Your task to perform on an android device: What's the latest video from IGN? Image 0: 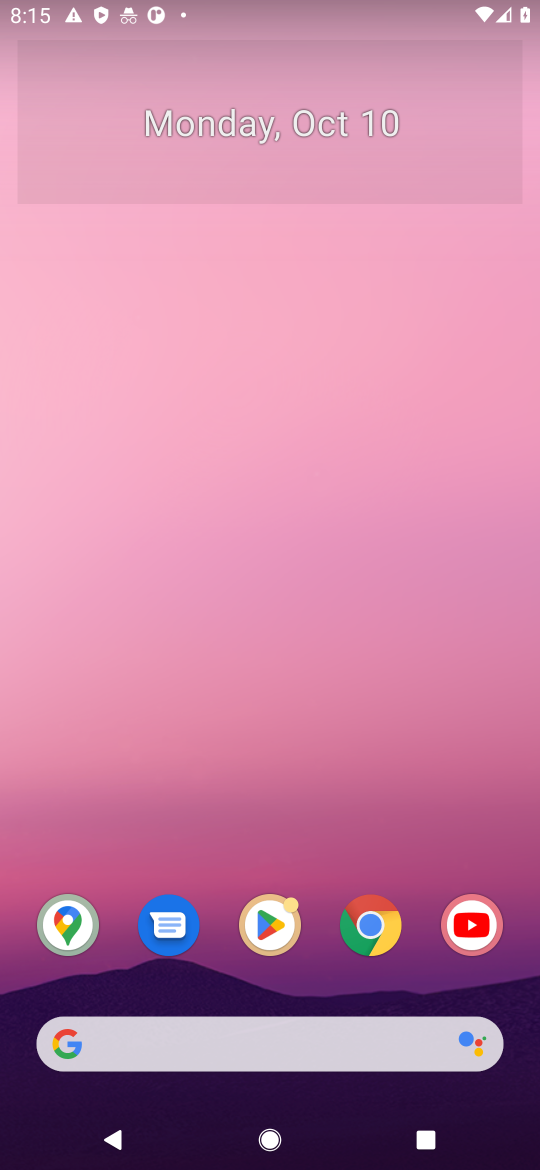
Step 0: drag from (322, 991) to (258, 45)
Your task to perform on an android device: What's the latest video from IGN? Image 1: 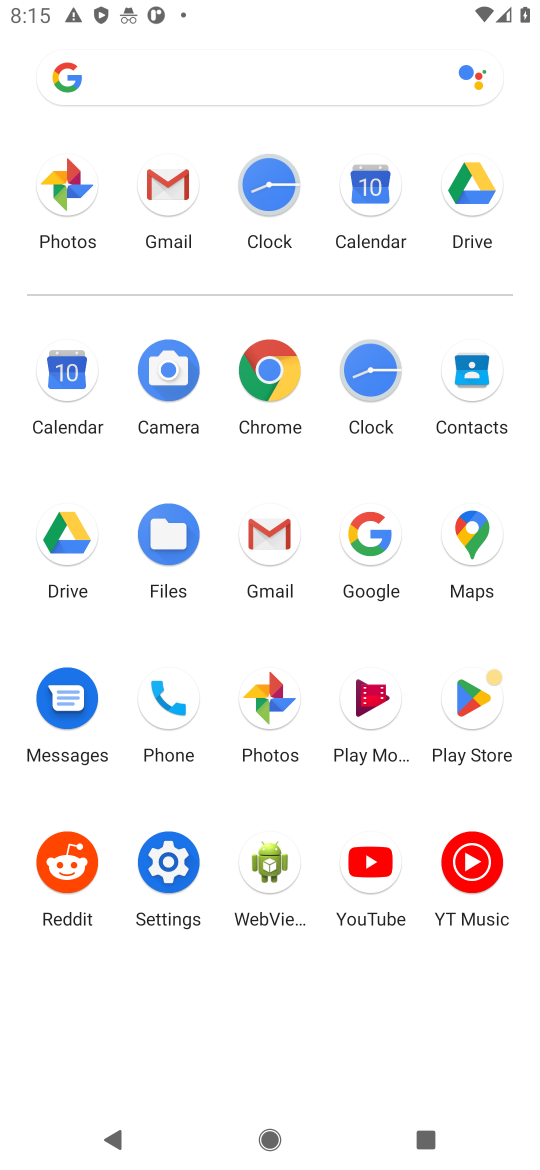
Step 1: click (259, 374)
Your task to perform on an android device: What's the latest video from IGN? Image 2: 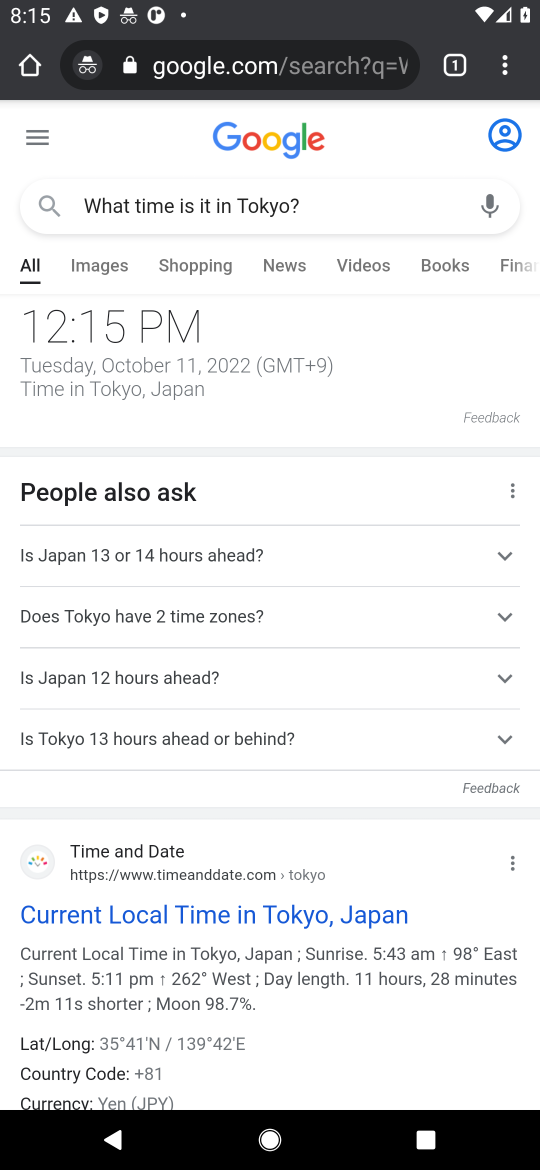
Step 2: press home button
Your task to perform on an android device: What's the latest video from IGN? Image 3: 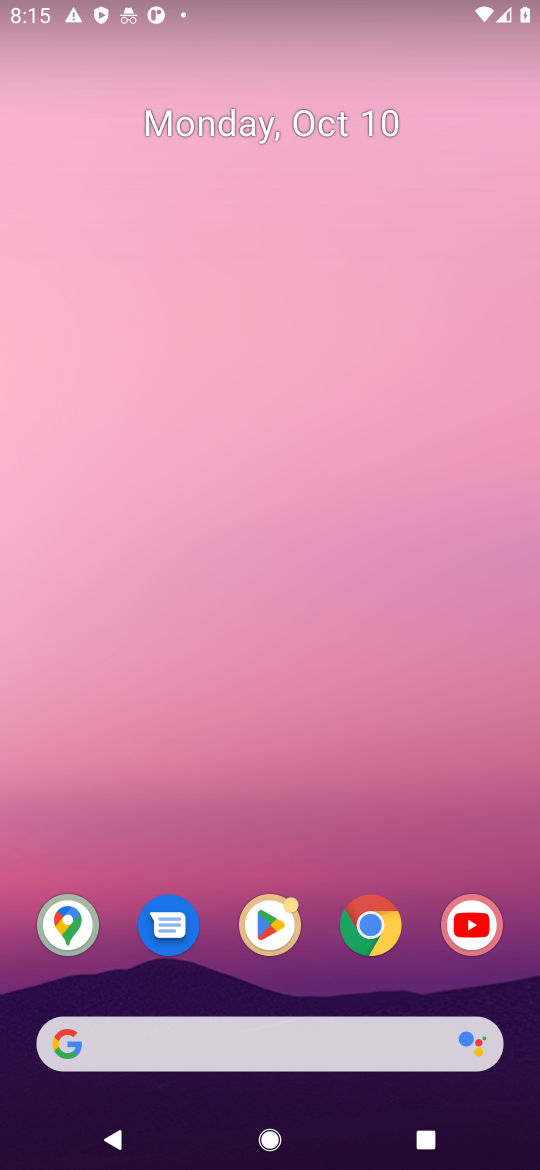
Step 3: click (475, 926)
Your task to perform on an android device: What's the latest video from IGN? Image 4: 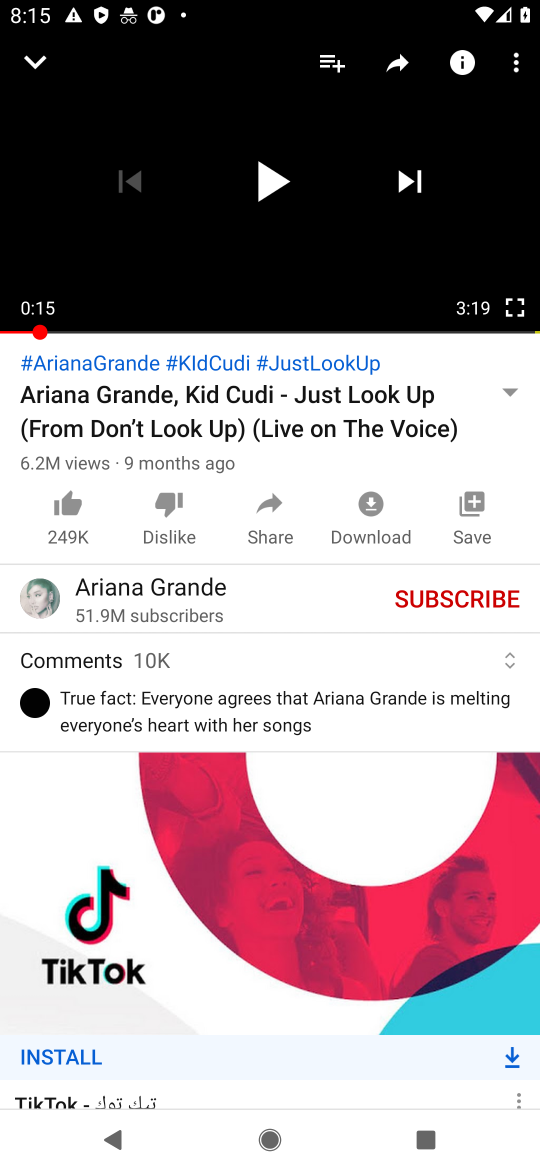
Step 4: drag from (363, 156) to (259, 961)
Your task to perform on an android device: What's the latest video from IGN? Image 5: 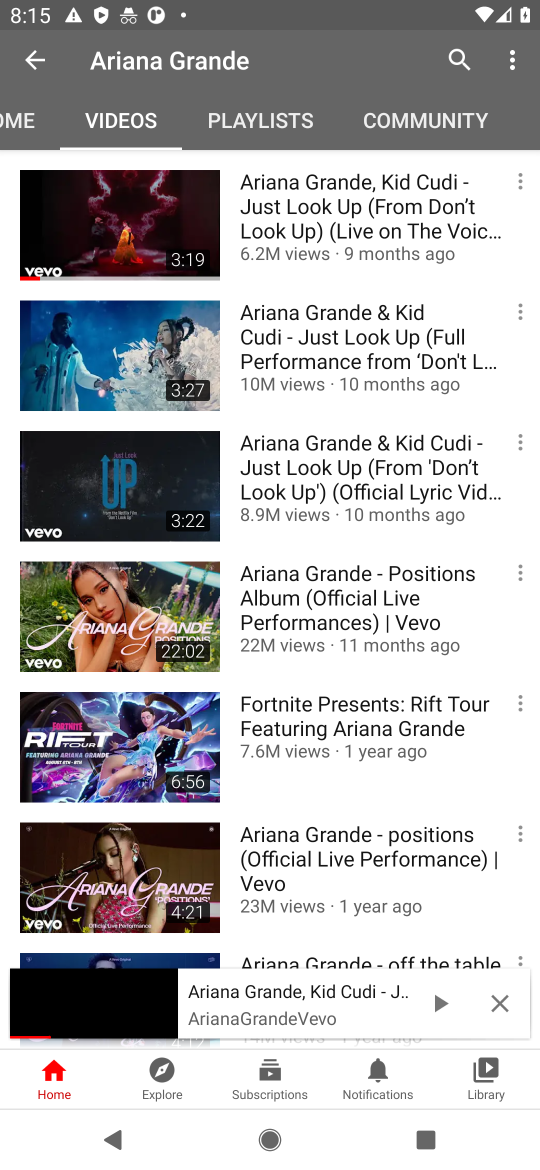
Step 5: click (319, 54)
Your task to perform on an android device: What's the latest video from IGN? Image 6: 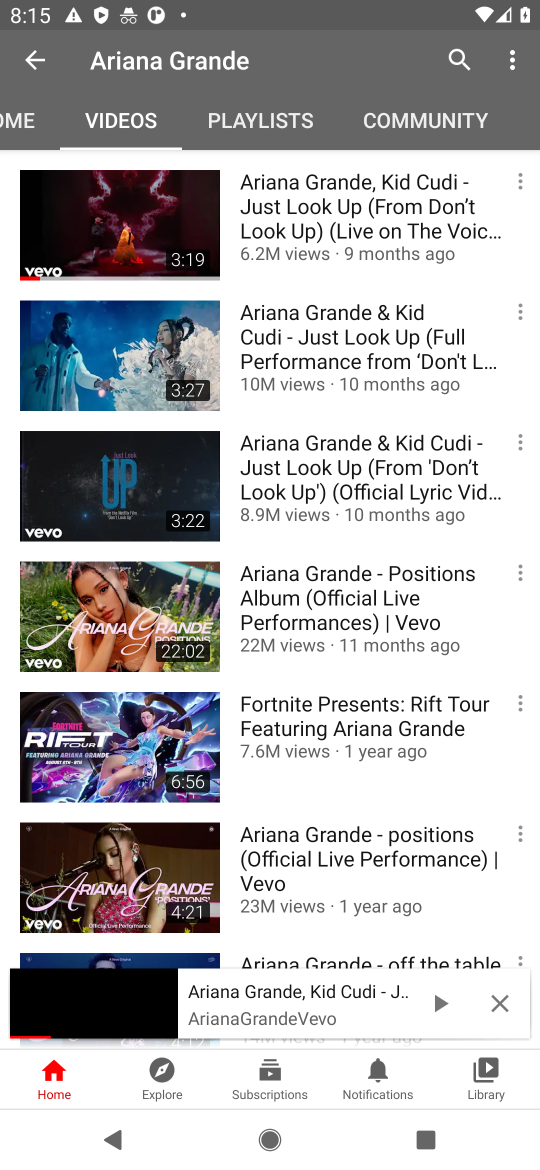
Step 6: press back button
Your task to perform on an android device: What's the latest video from IGN? Image 7: 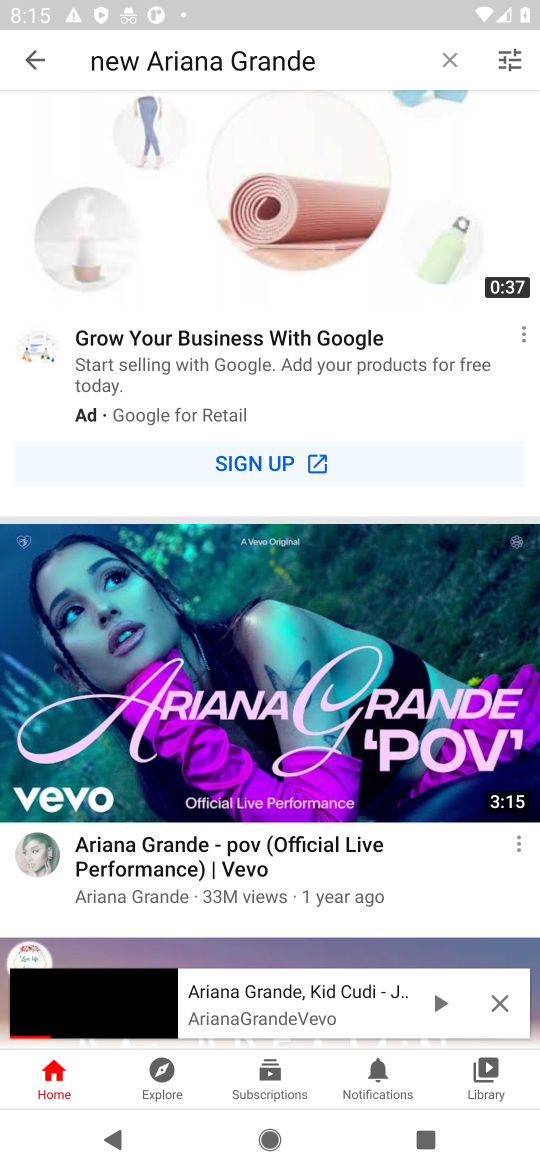
Step 7: click (484, 64)
Your task to perform on an android device: What's the latest video from IGN? Image 8: 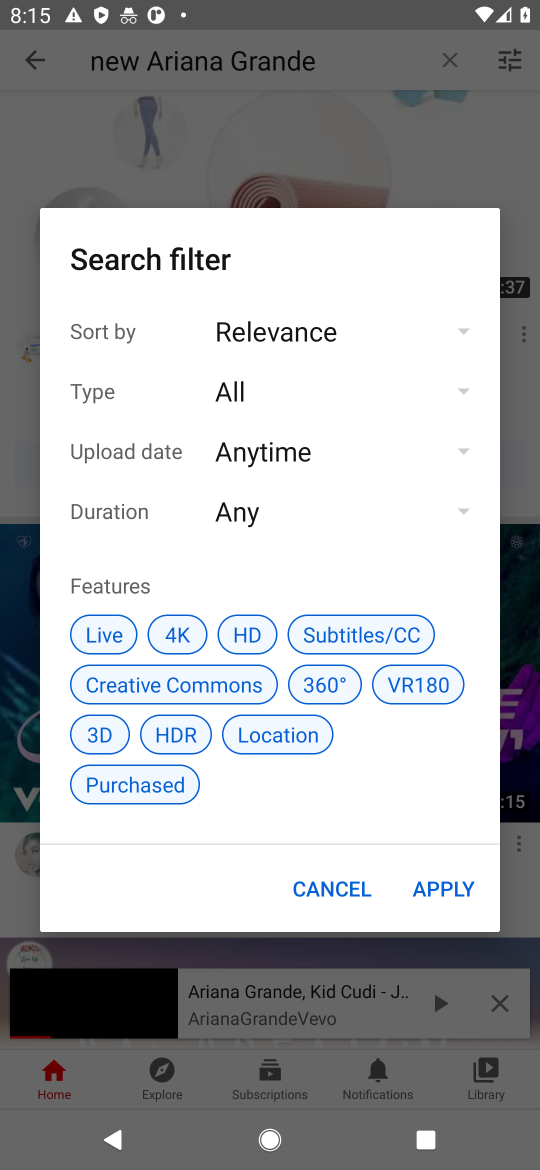
Step 8: click (446, 59)
Your task to perform on an android device: What's the latest video from IGN? Image 9: 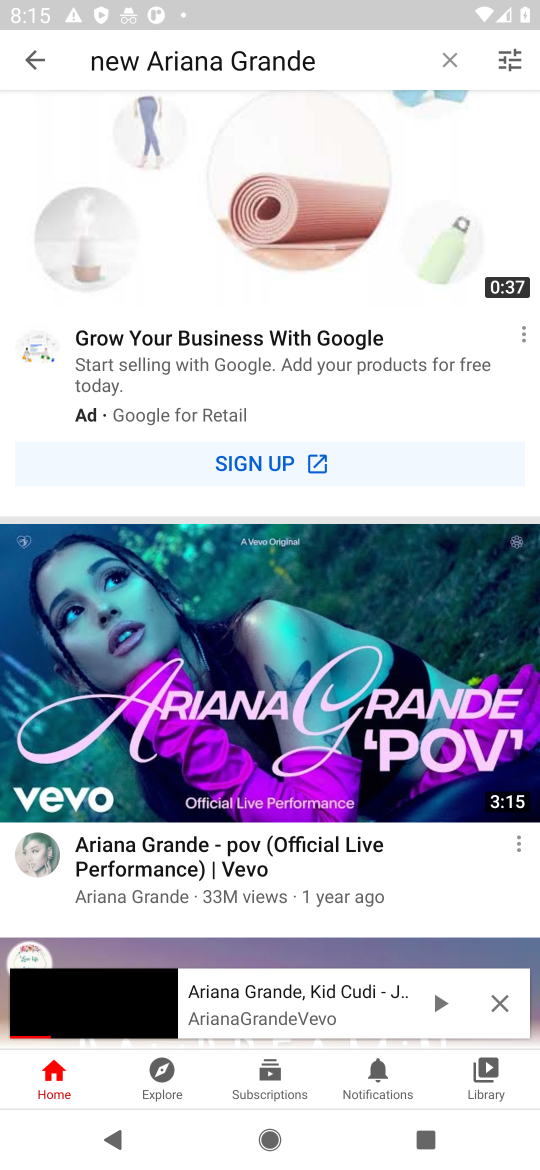
Step 9: click (446, 59)
Your task to perform on an android device: What's the latest video from IGN? Image 10: 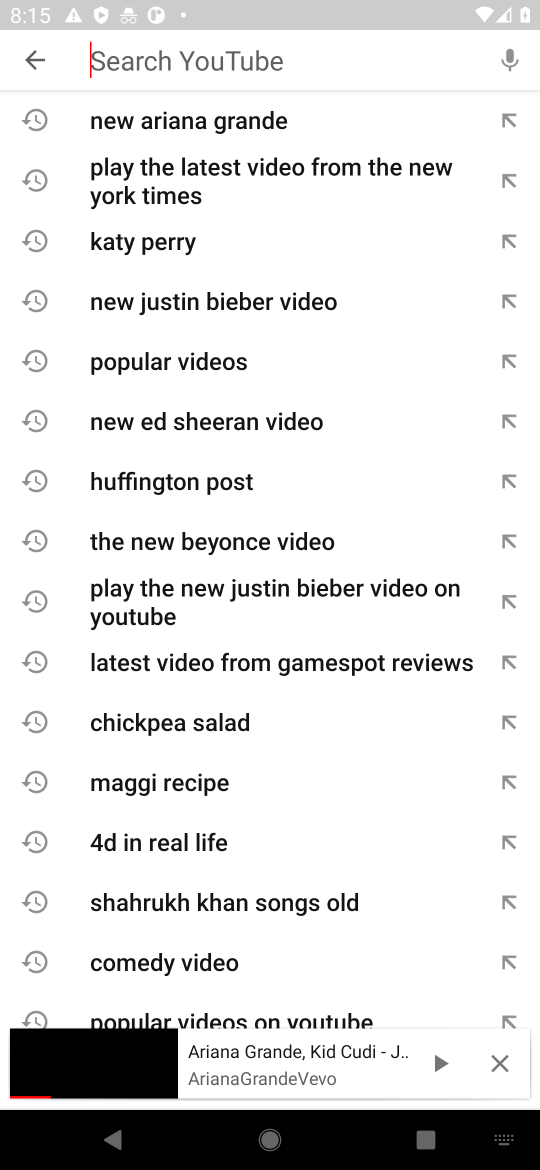
Step 10: type "IGN"
Your task to perform on an android device: What's the latest video from IGN? Image 11: 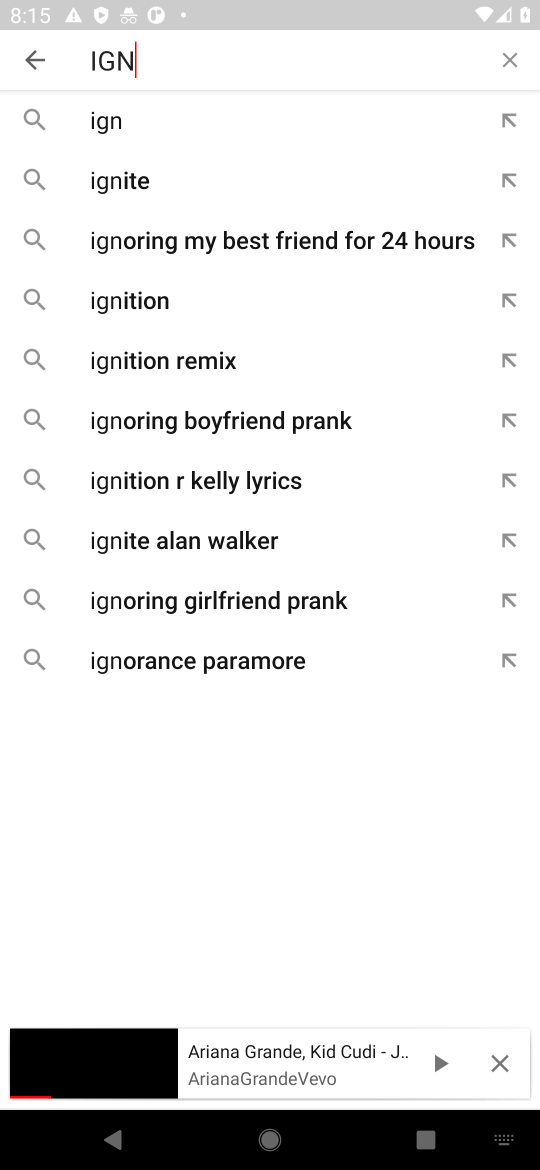
Step 11: press enter
Your task to perform on an android device: What's the latest video from IGN? Image 12: 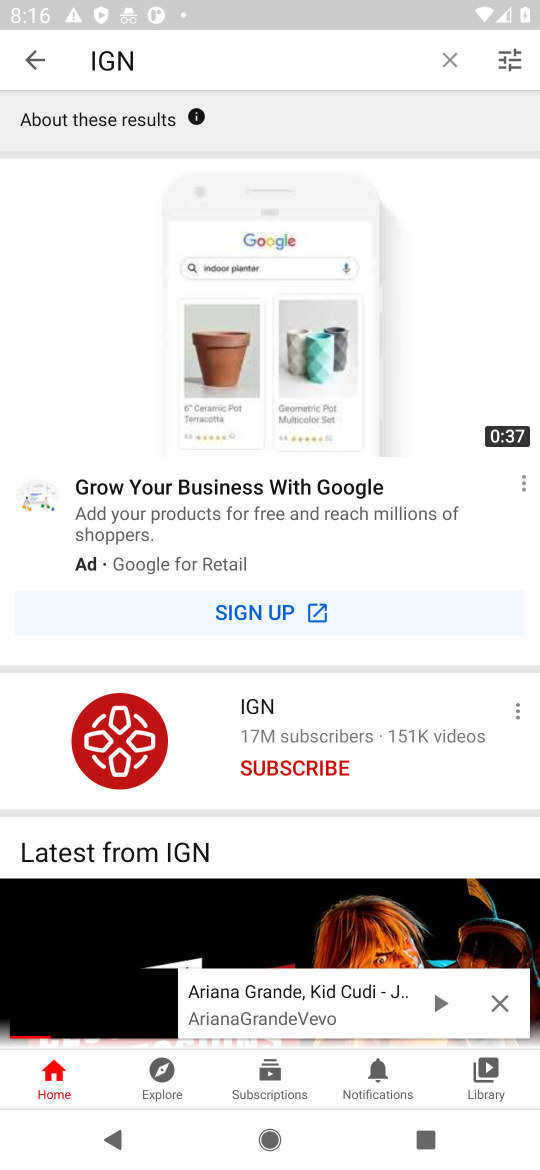
Step 12: click (259, 706)
Your task to perform on an android device: What's the latest video from IGN? Image 13: 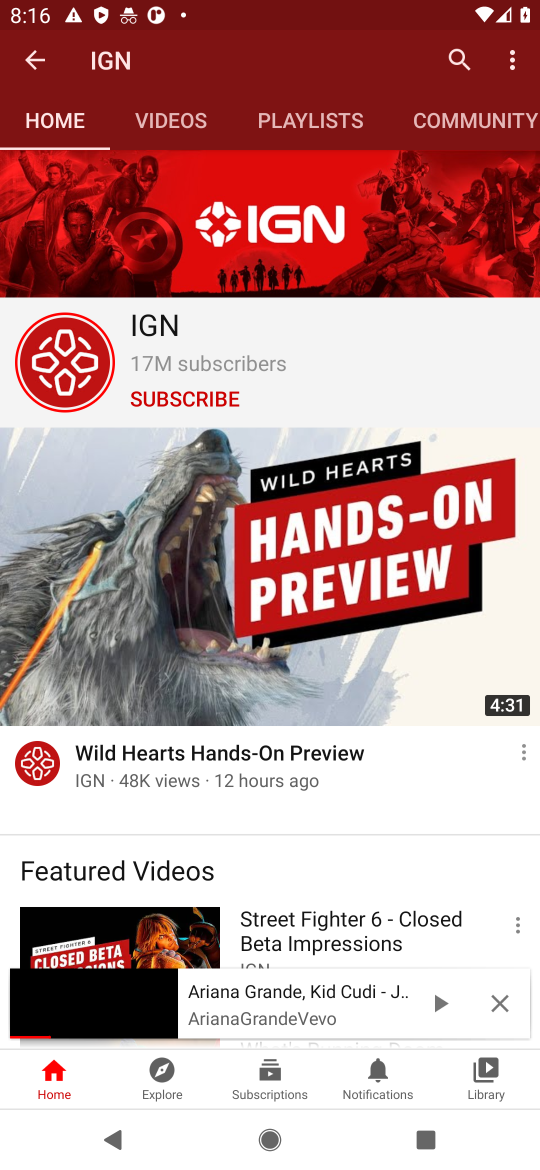
Step 13: click (182, 120)
Your task to perform on an android device: What's the latest video from IGN? Image 14: 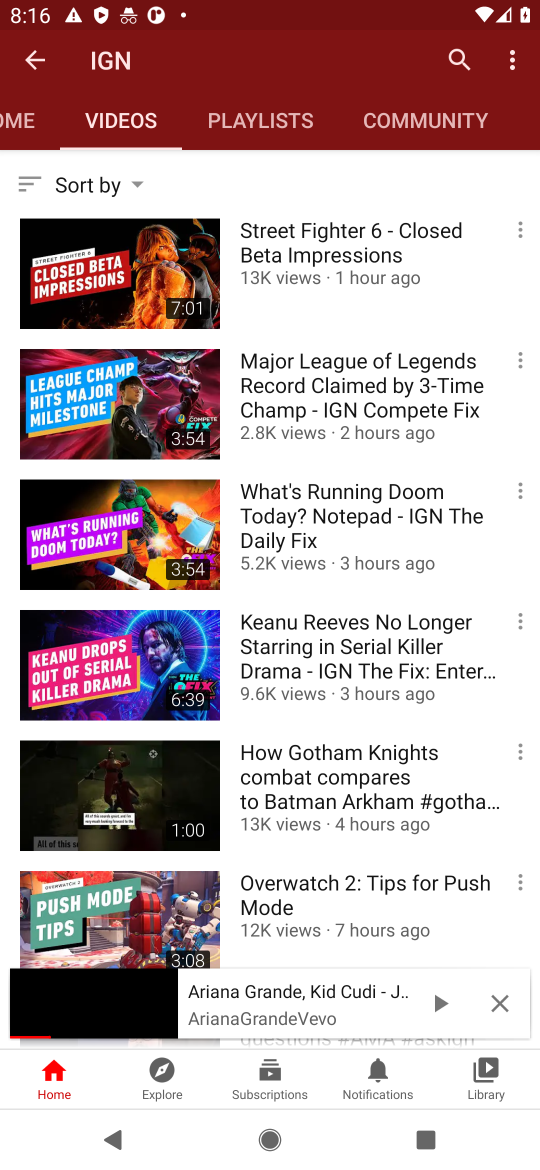
Step 14: click (128, 257)
Your task to perform on an android device: What's the latest video from IGN? Image 15: 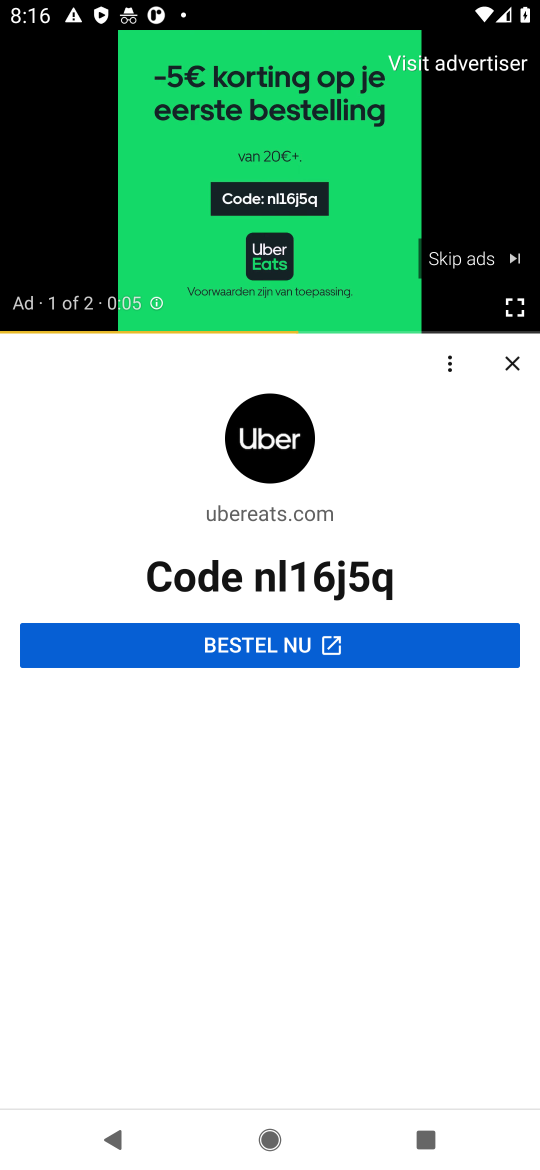
Step 15: click (500, 261)
Your task to perform on an android device: What's the latest video from IGN? Image 16: 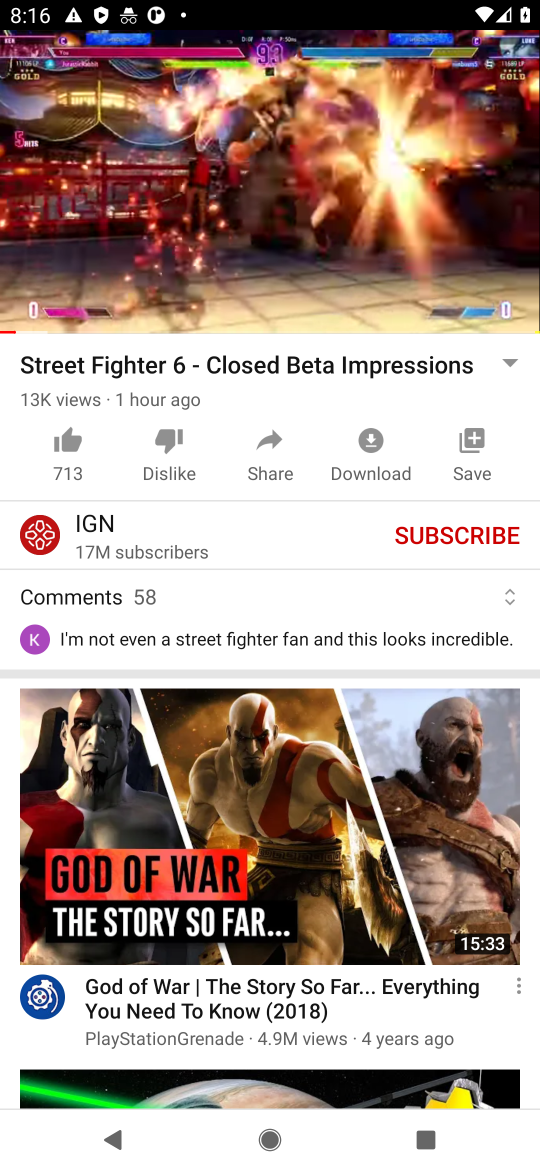
Step 16: task complete